Your task to perform on an android device: Show me productivity apps on the Play Store Image 0: 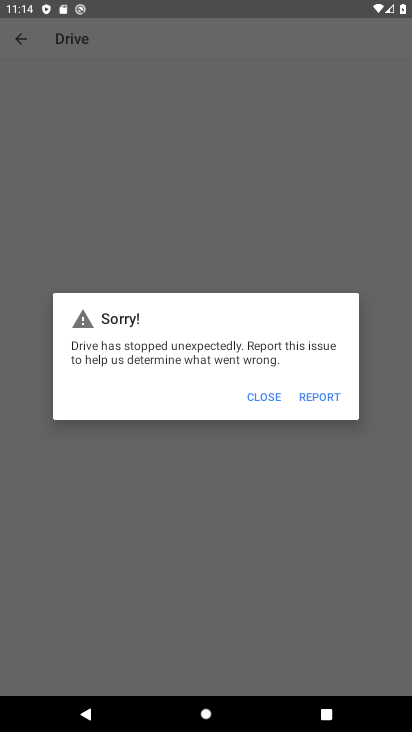
Step 0: press home button
Your task to perform on an android device: Show me productivity apps on the Play Store Image 1: 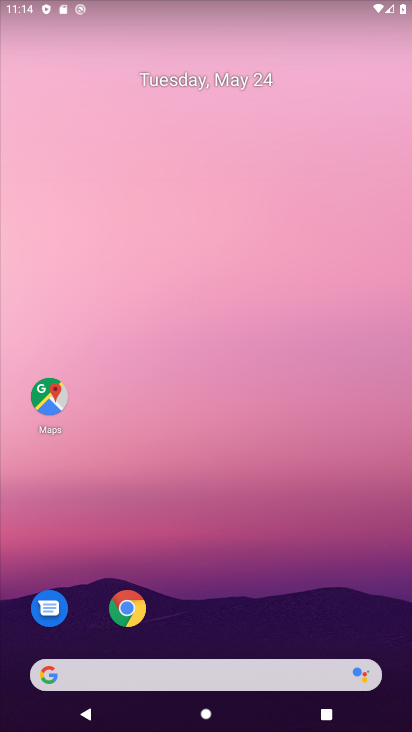
Step 1: drag from (282, 626) to (281, 134)
Your task to perform on an android device: Show me productivity apps on the Play Store Image 2: 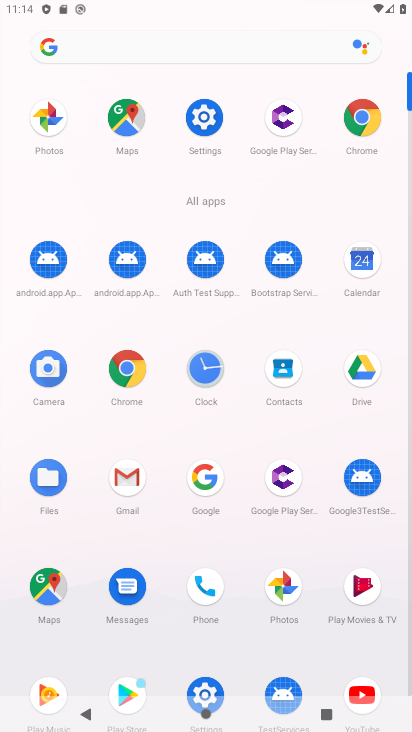
Step 2: click (125, 681)
Your task to perform on an android device: Show me productivity apps on the Play Store Image 3: 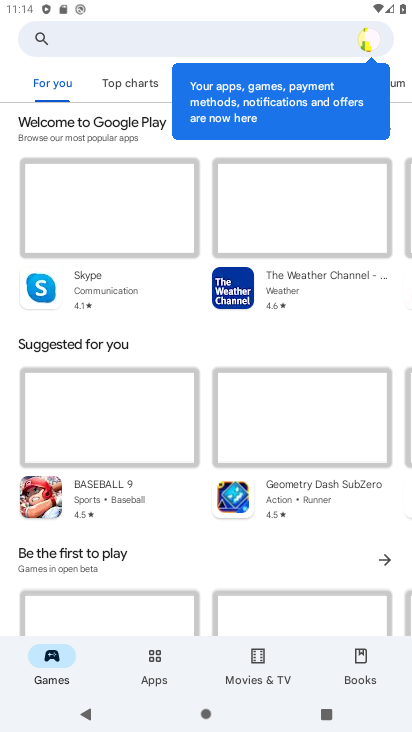
Step 3: click (136, 89)
Your task to perform on an android device: Show me productivity apps on the Play Store Image 4: 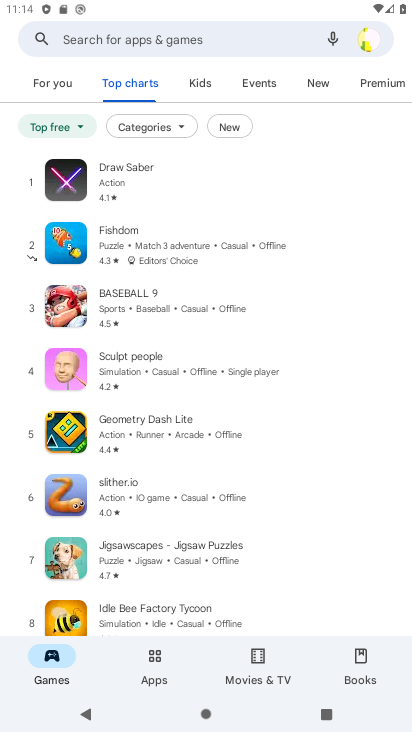
Step 4: click (152, 652)
Your task to perform on an android device: Show me productivity apps on the Play Store Image 5: 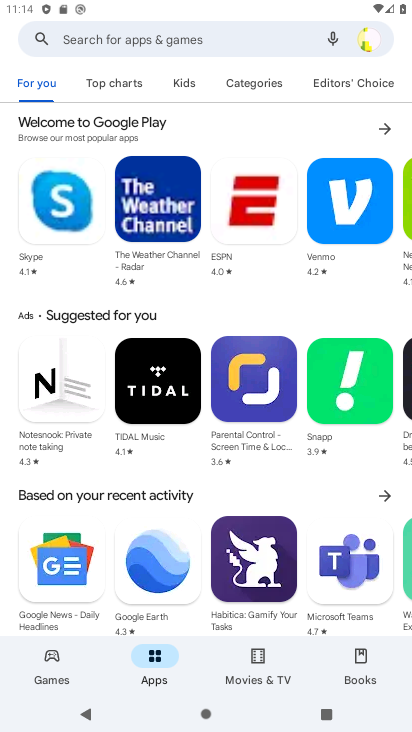
Step 5: click (120, 85)
Your task to perform on an android device: Show me productivity apps on the Play Store Image 6: 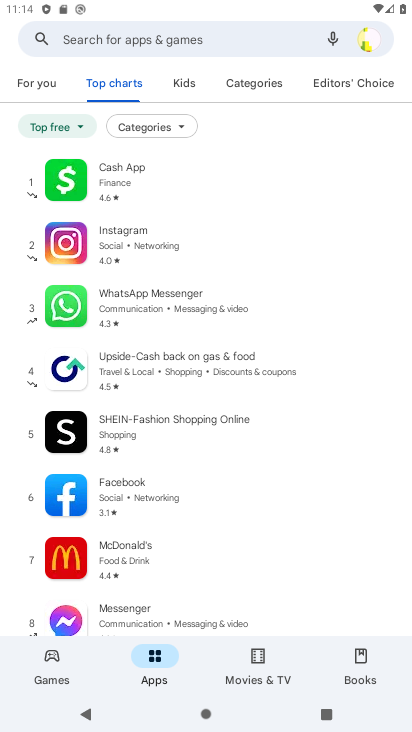
Step 6: click (120, 85)
Your task to perform on an android device: Show me productivity apps on the Play Store Image 7: 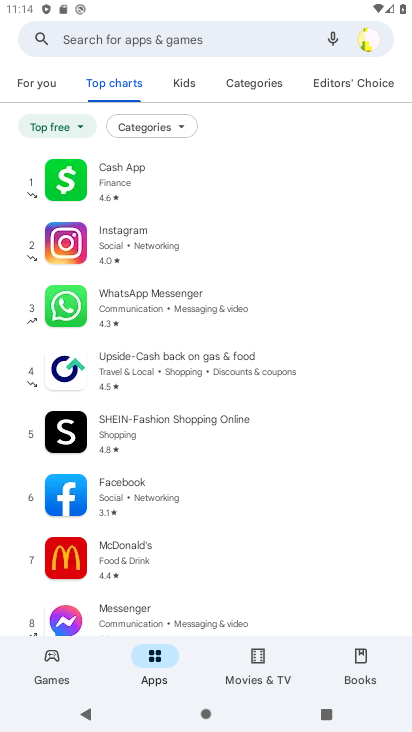
Step 7: click (160, 125)
Your task to perform on an android device: Show me productivity apps on the Play Store Image 8: 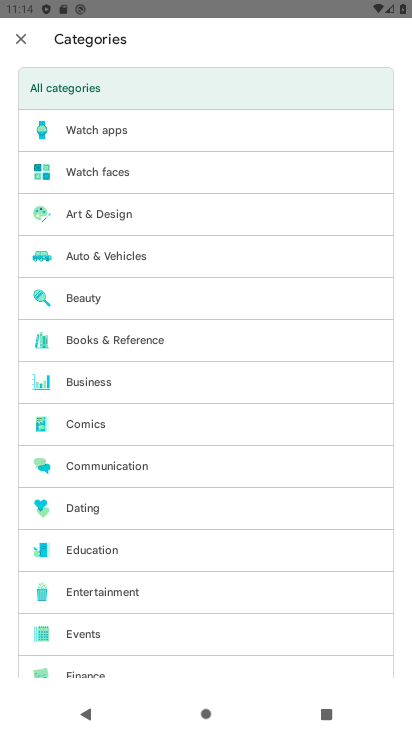
Step 8: drag from (266, 510) to (231, 171)
Your task to perform on an android device: Show me productivity apps on the Play Store Image 9: 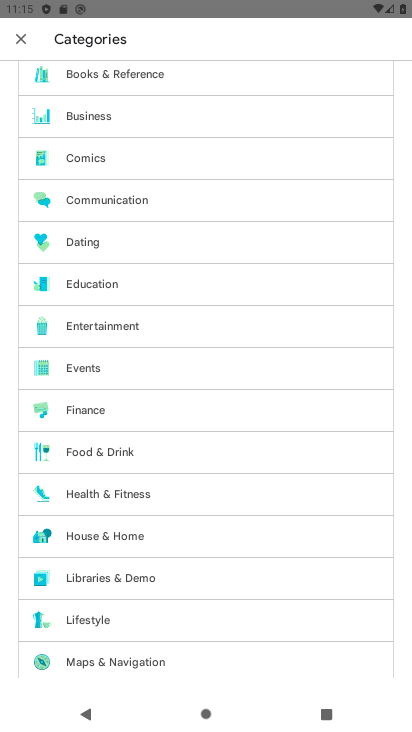
Step 9: drag from (187, 586) to (127, 359)
Your task to perform on an android device: Show me productivity apps on the Play Store Image 10: 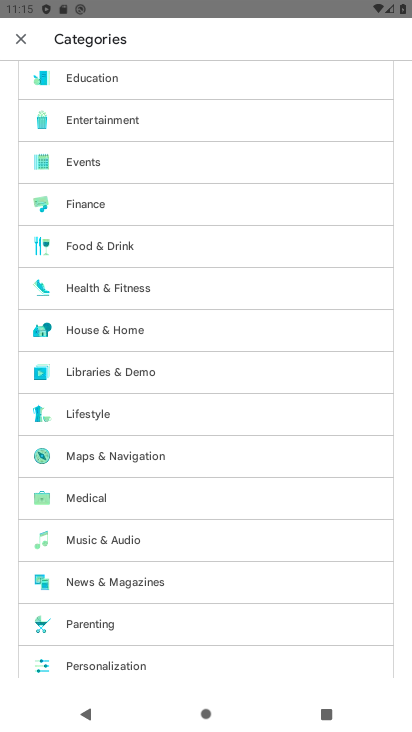
Step 10: drag from (198, 653) to (184, 432)
Your task to perform on an android device: Show me productivity apps on the Play Store Image 11: 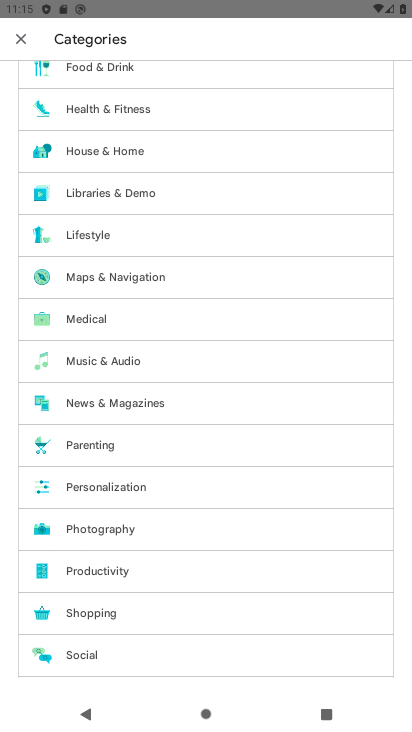
Step 11: click (172, 579)
Your task to perform on an android device: Show me productivity apps on the Play Store Image 12: 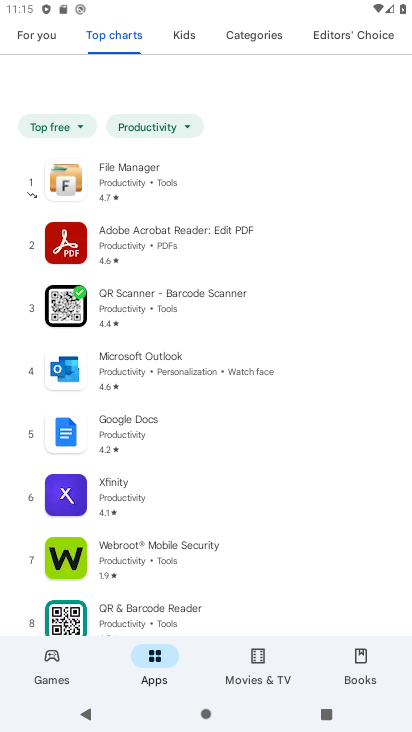
Step 12: task complete